Your task to perform on an android device: Open Youtube and go to "Your channel" Image 0: 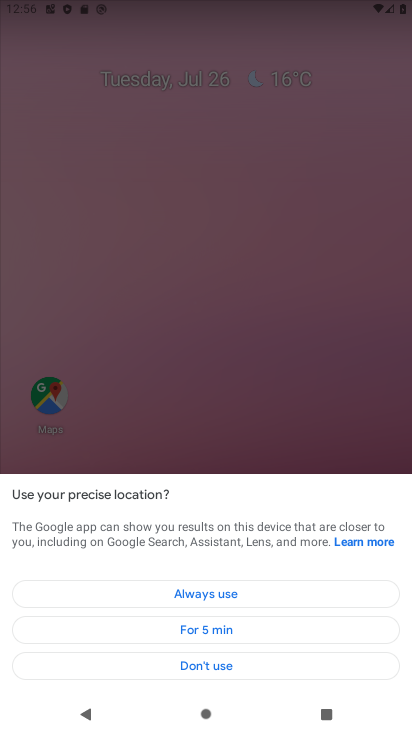
Step 0: press home button
Your task to perform on an android device: Open Youtube and go to "Your channel" Image 1: 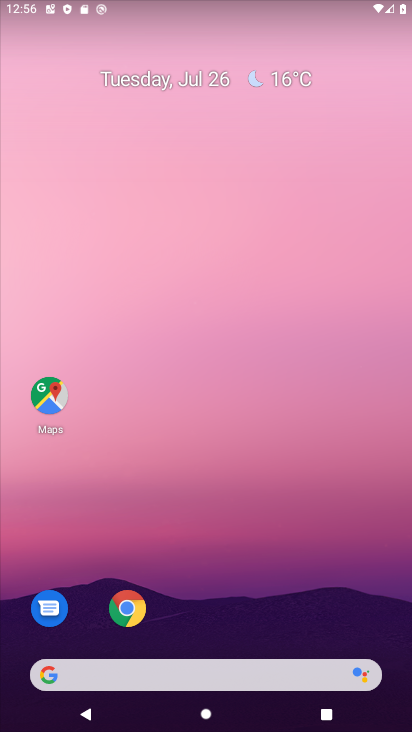
Step 1: drag from (312, 599) to (212, 39)
Your task to perform on an android device: Open Youtube and go to "Your channel" Image 2: 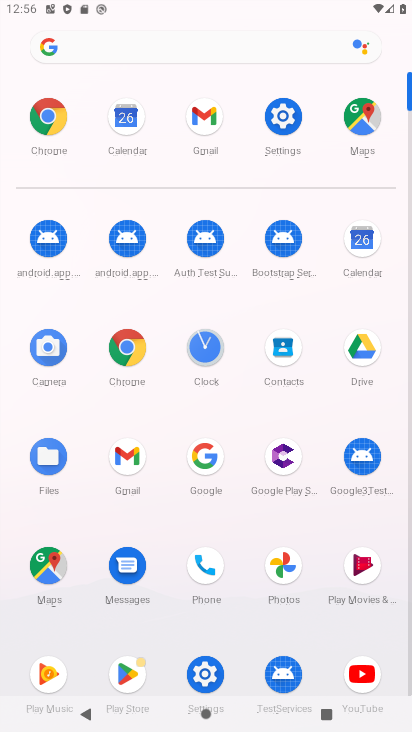
Step 2: click (349, 698)
Your task to perform on an android device: Open Youtube and go to "Your channel" Image 3: 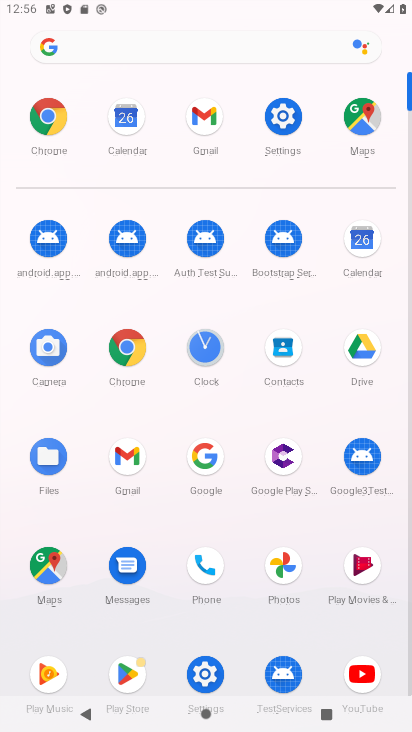
Step 3: click (349, 680)
Your task to perform on an android device: Open Youtube and go to "Your channel" Image 4: 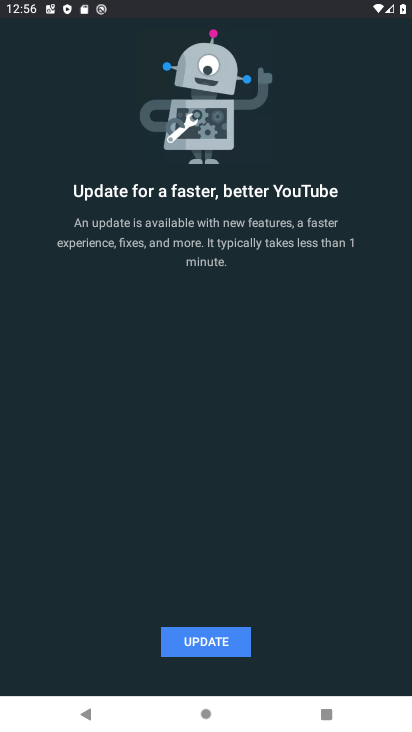
Step 4: task complete